Your task to perform on an android device: Open ESPN.com Image 0: 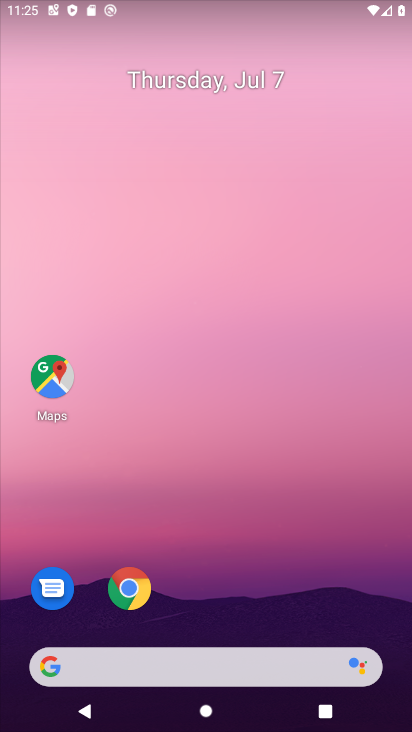
Step 0: drag from (209, 605) to (293, 53)
Your task to perform on an android device: Open ESPN.com Image 1: 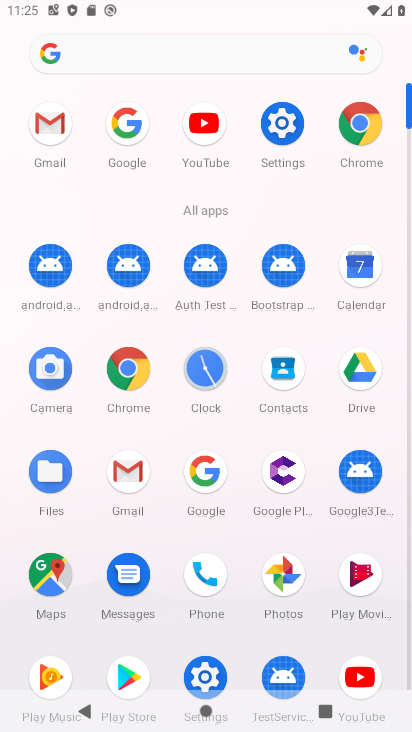
Step 1: click (128, 115)
Your task to perform on an android device: Open ESPN.com Image 2: 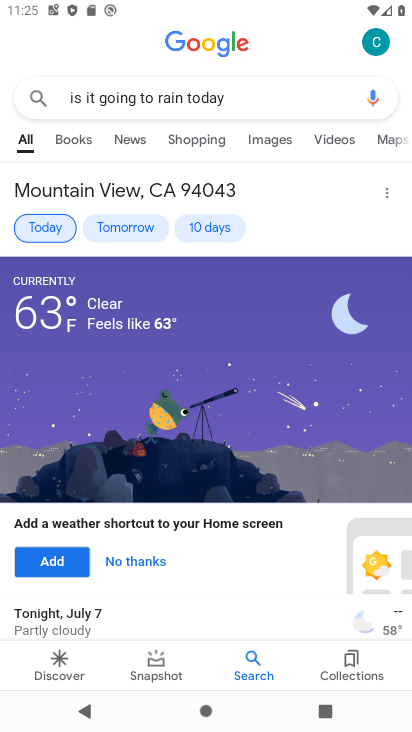
Step 2: click (251, 95)
Your task to perform on an android device: Open ESPN.com Image 3: 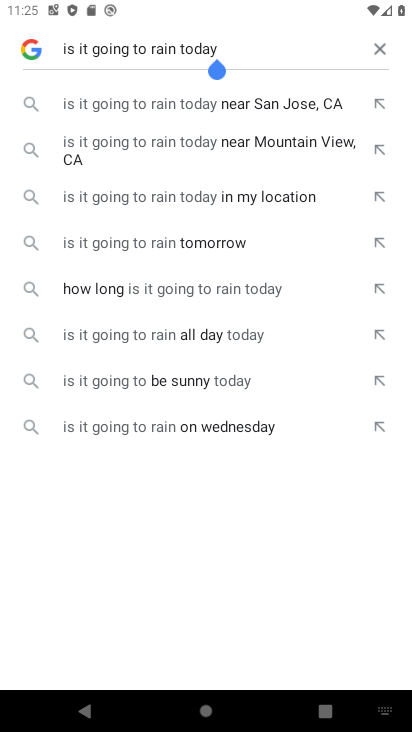
Step 3: click (382, 46)
Your task to perform on an android device: Open ESPN.com Image 4: 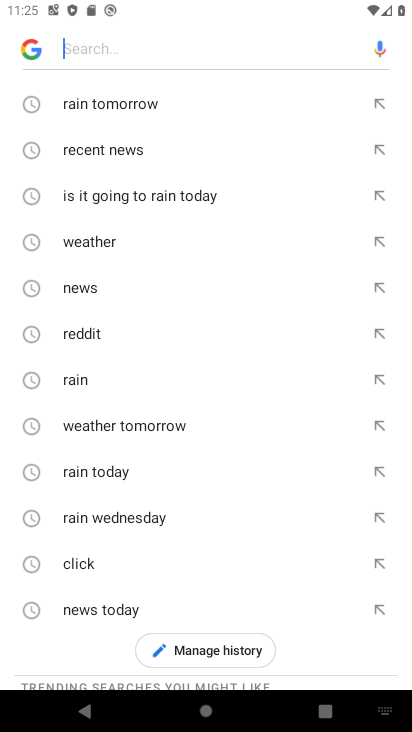
Step 4: type "Espn.com"
Your task to perform on an android device: Open ESPN.com Image 5: 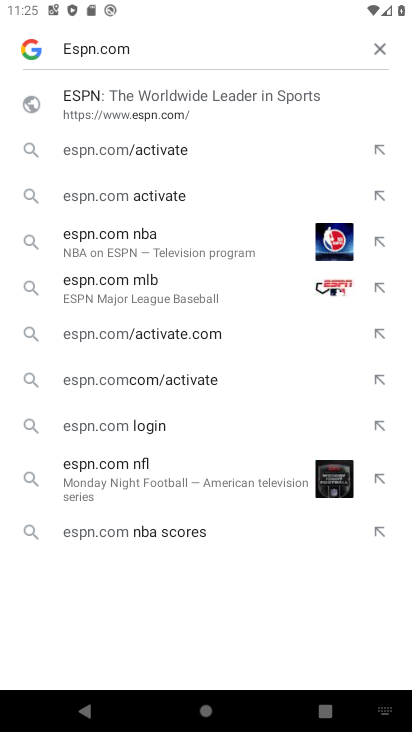
Step 5: click (198, 101)
Your task to perform on an android device: Open ESPN.com Image 6: 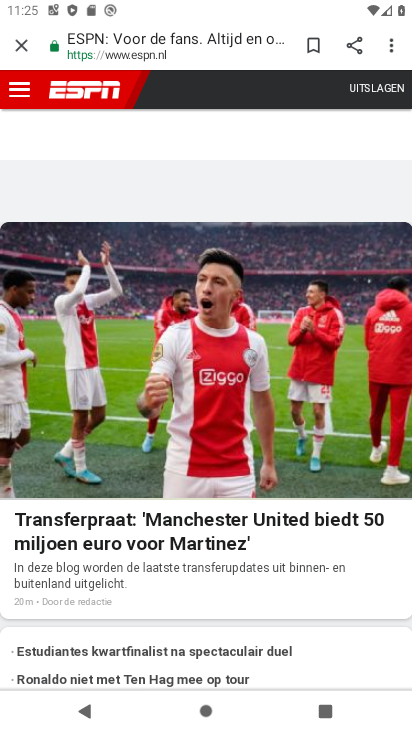
Step 6: task complete